Your task to perform on an android device: Open calendar and show me the second week of next month Image 0: 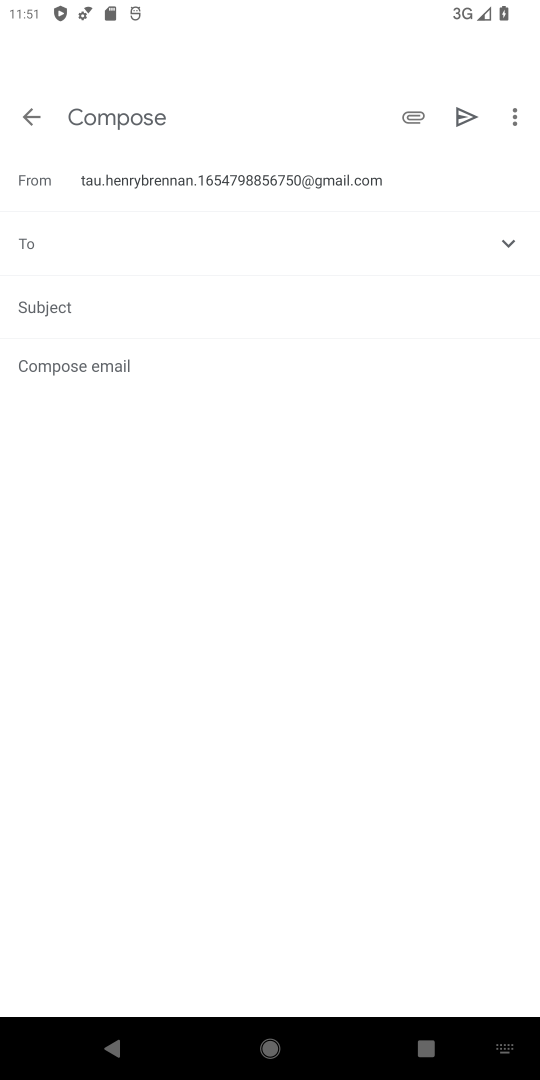
Step 0: drag from (96, 493) to (103, 749)
Your task to perform on an android device: Open calendar and show me the second week of next month Image 1: 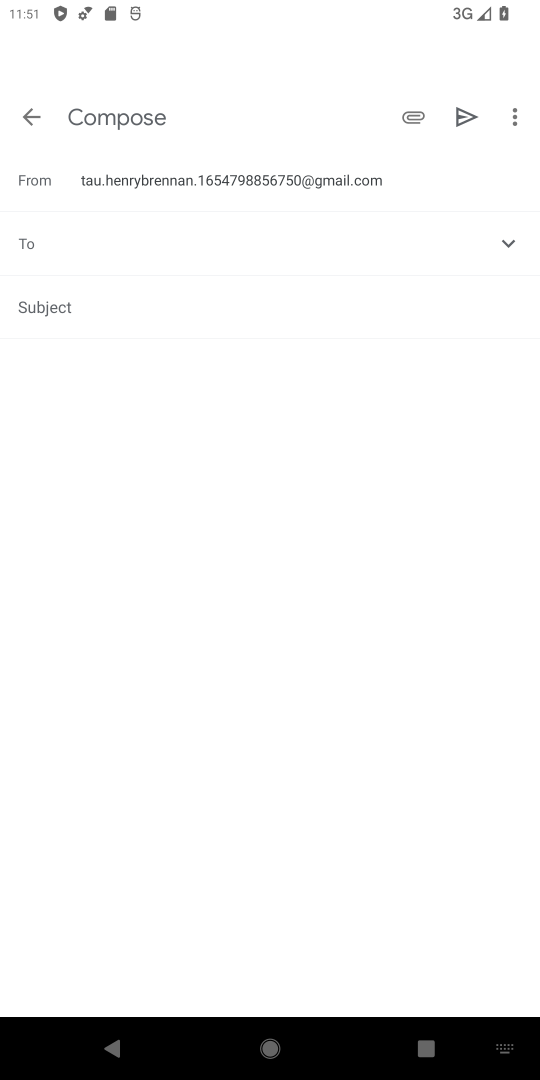
Step 1: drag from (368, 584) to (340, 1)
Your task to perform on an android device: Open calendar and show me the second week of next month Image 2: 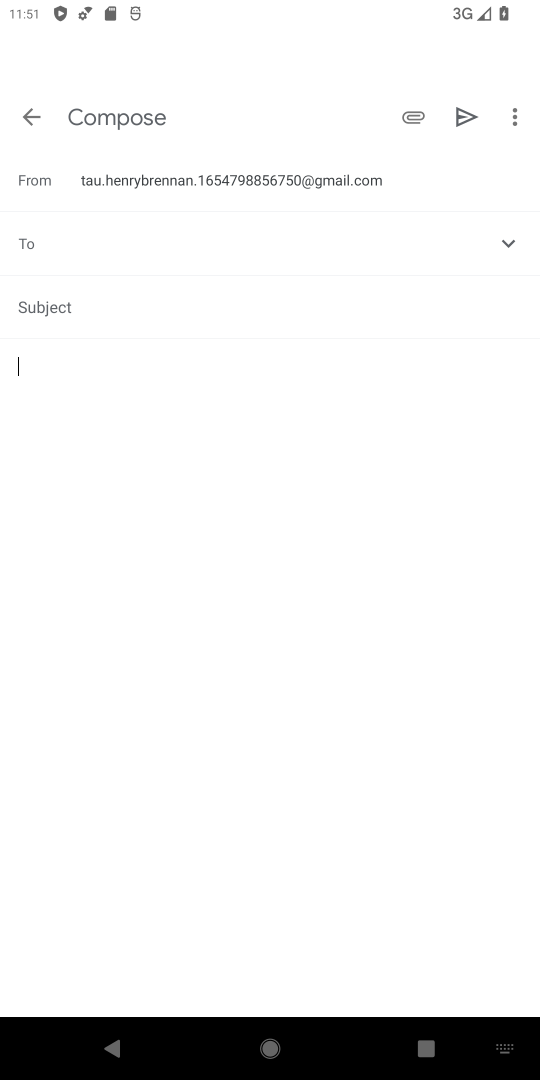
Step 2: drag from (150, 274) to (219, 878)
Your task to perform on an android device: Open calendar and show me the second week of next month Image 3: 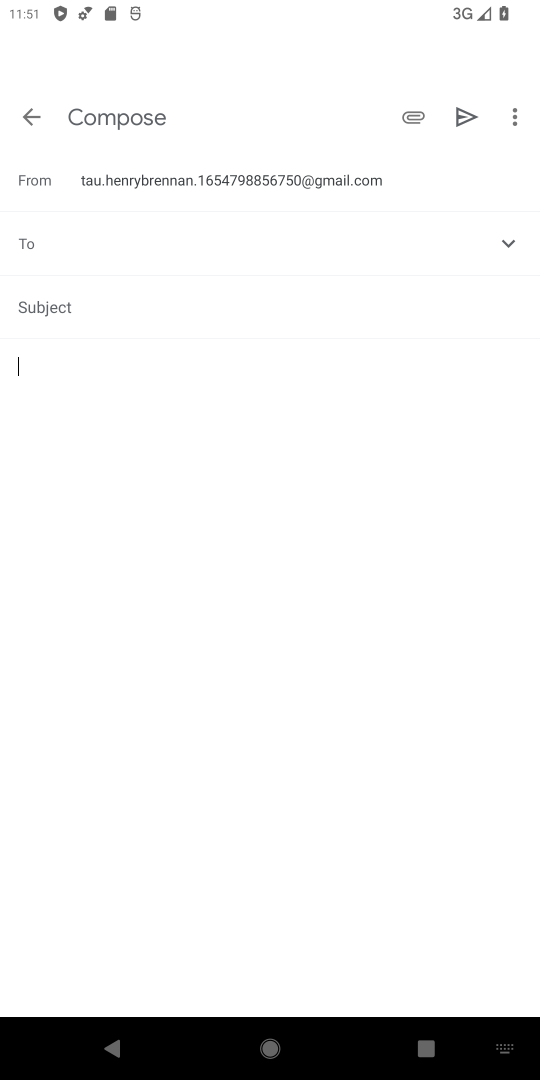
Step 3: drag from (235, 563) to (239, 478)
Your task to perform on an android device: Open calendar and show me the second week of next month Image 4: 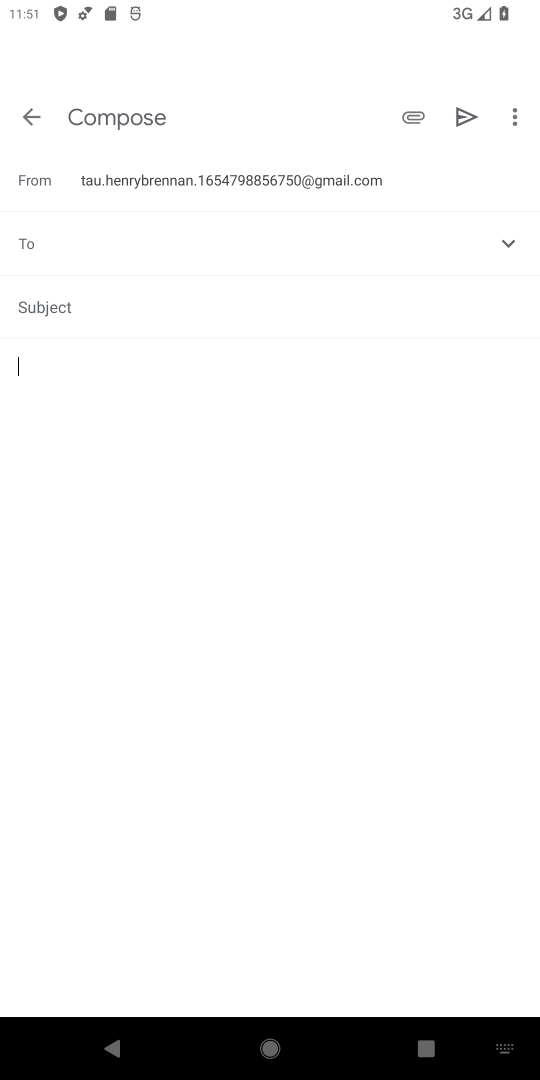
Step 4: press home button
Your task to perform on an android device: Open calendar and show me the second week of next month Image 5: 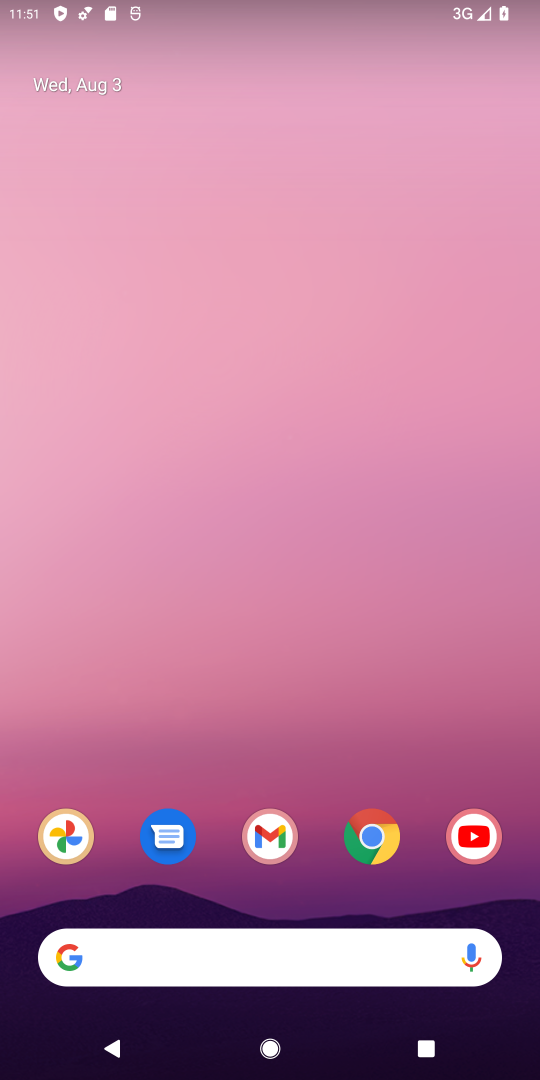
Step 5: drag from (234, 726) to (238, 408)
Your task to perform on an android device: Open calendar and show me the second week of next month Image 6: 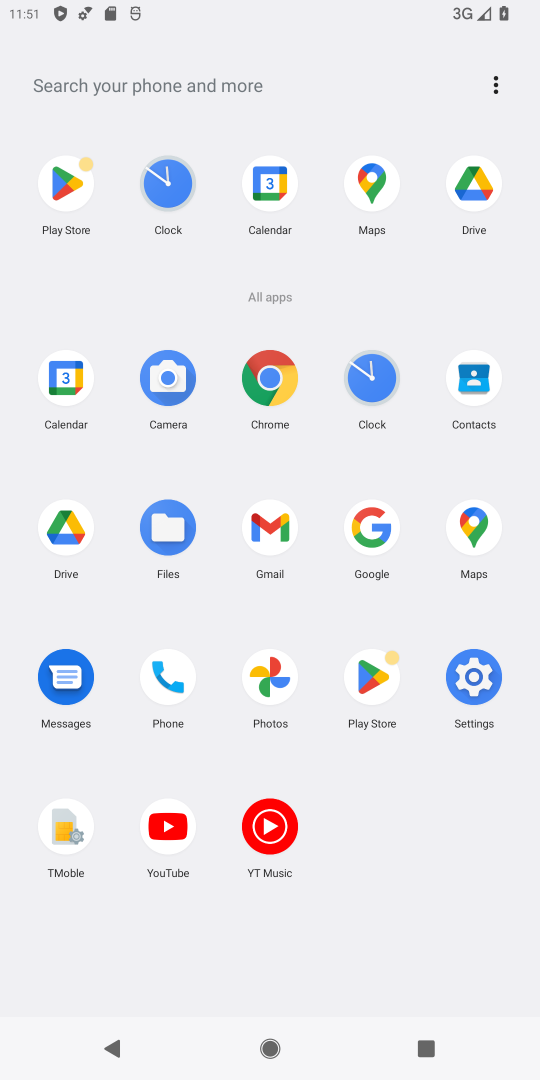
Step 6: click (51, 377)
Your task to perform on an android device: Open calendar and show me the second week of next month Image 7: 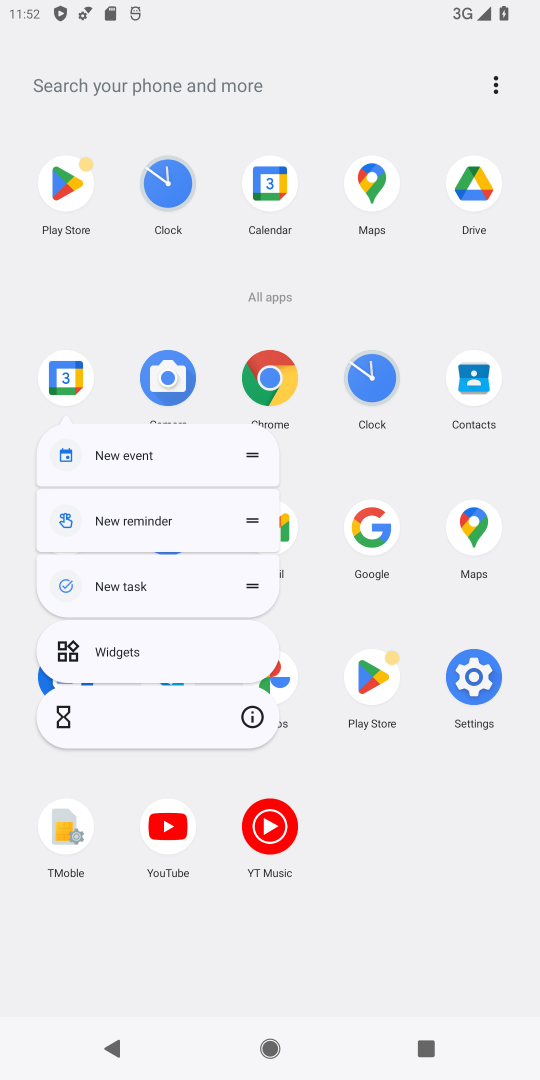
Step 7: click (236, 719)
Your task to perform on an android device: Open calendar and show me the second week of next month Image 8: 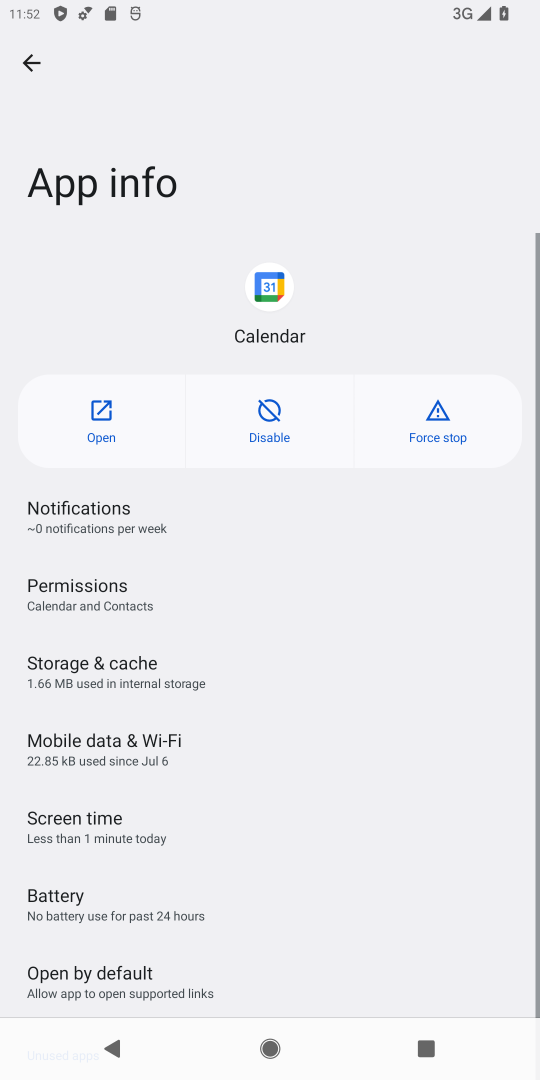
Step 8: click (87, 410)
Your task to perform on an android device: Open calendar and show me the second week of next month Image 9: 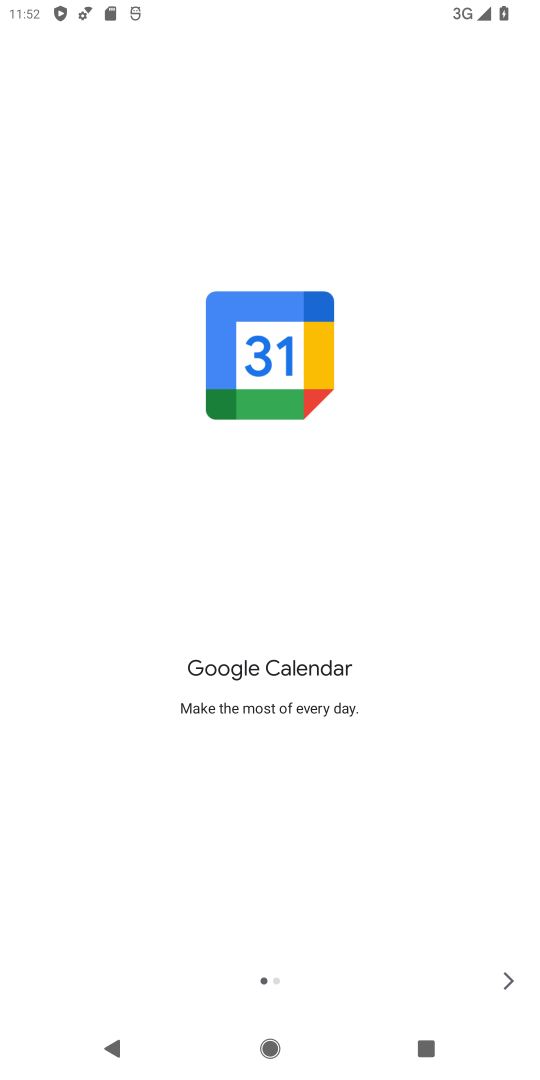
Step 9: click (505, 974)
Your task to perform on an android device: Open calendar and show me the second week of next month Image 10: 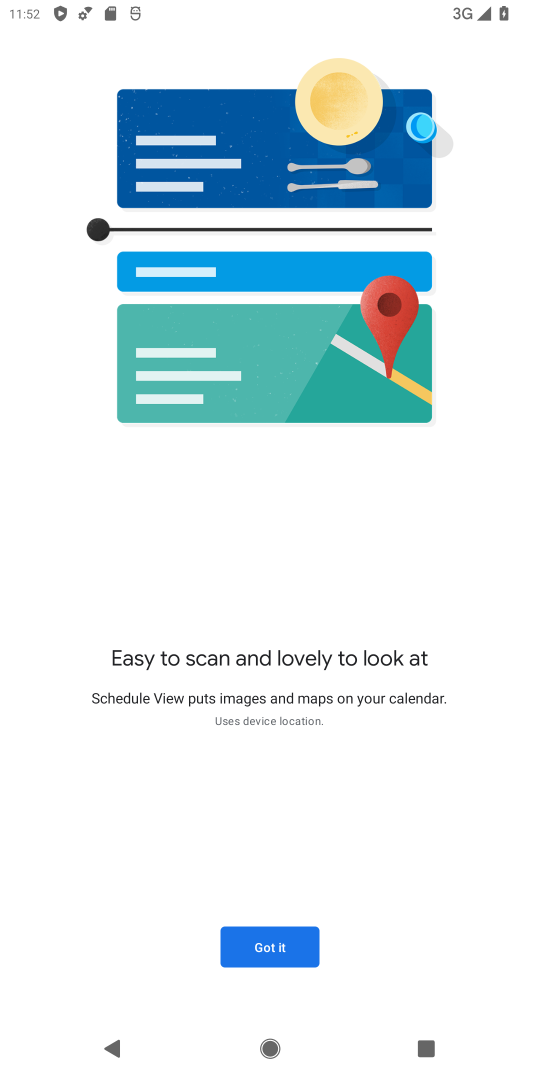
Step 10: click (263, 947)
Your task to perform on an android device: Open calendar and show me the second week of next month Image 11: 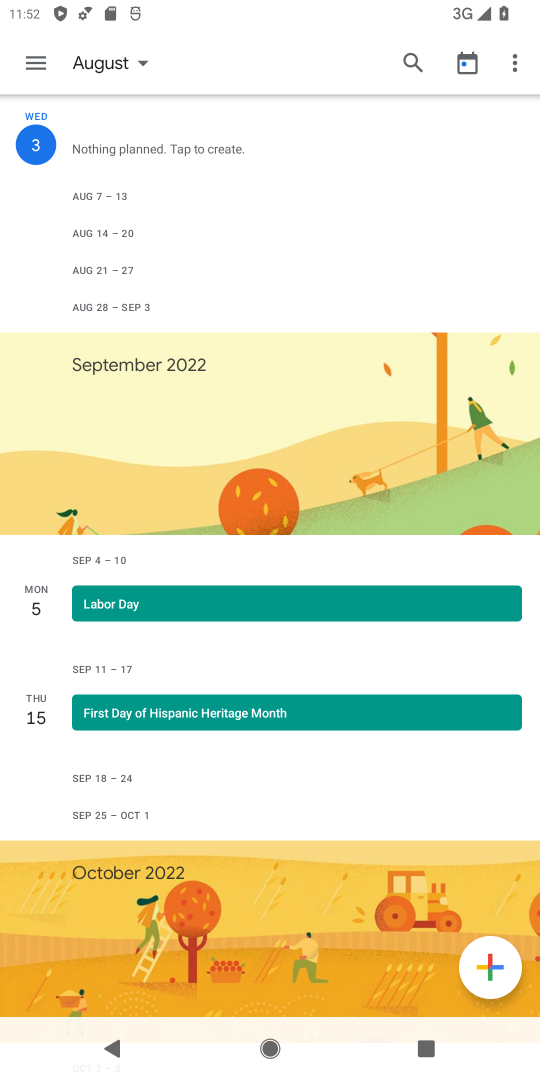
Step 11: drag from (230, 875) to (262, 380)
Your task to perform on an android device: Open calendar and show me the second week of next month Image 12: 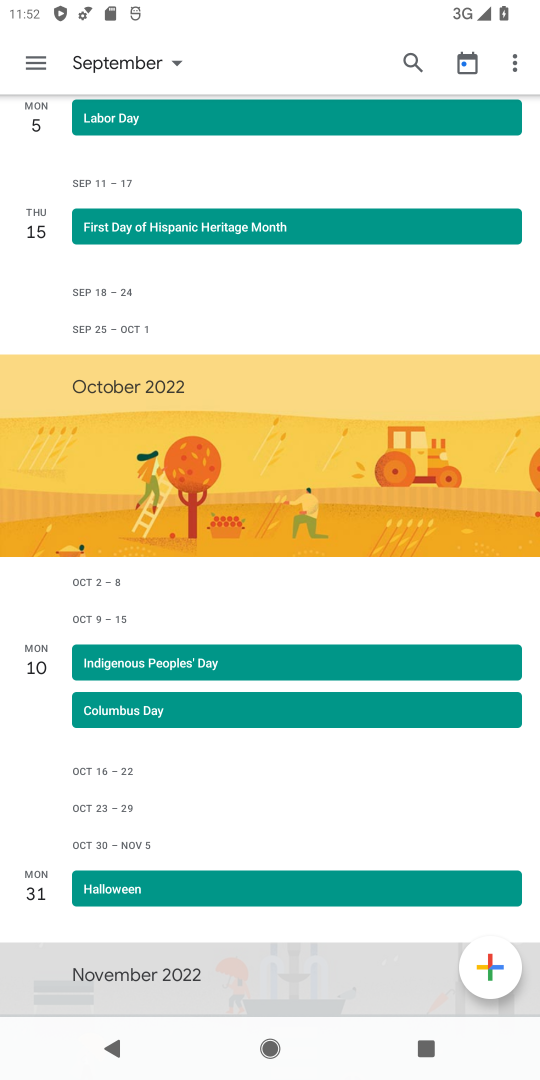
Step 12: drag from (331, 299) to (213, 929)
Your task to perform on an android device: Open calendar and show me the second week of next month Image 13: 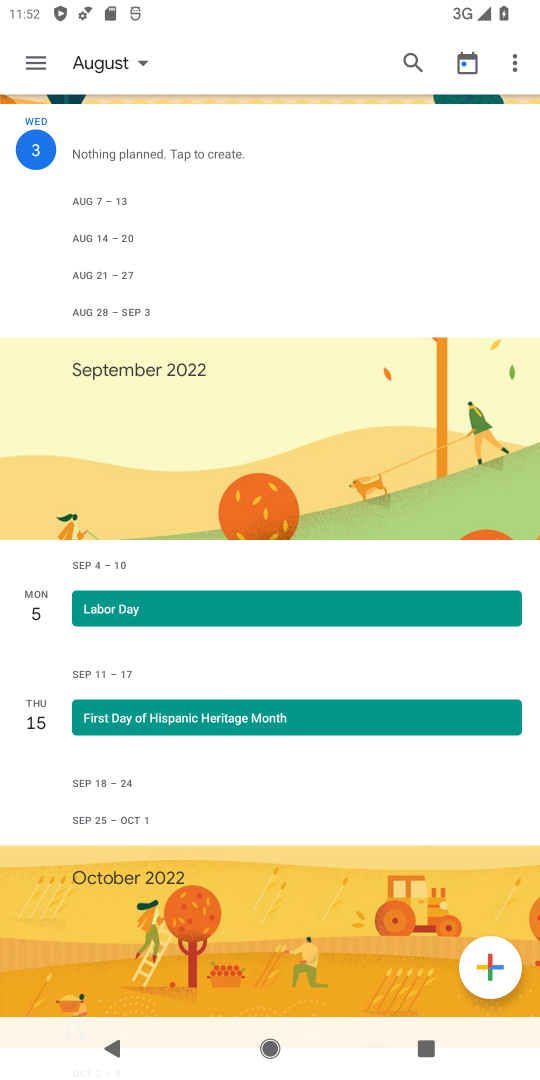
Step 13: click (113, 71)
Your task to perform on an android device: Open calendar and show me the second week of next month Image 14: 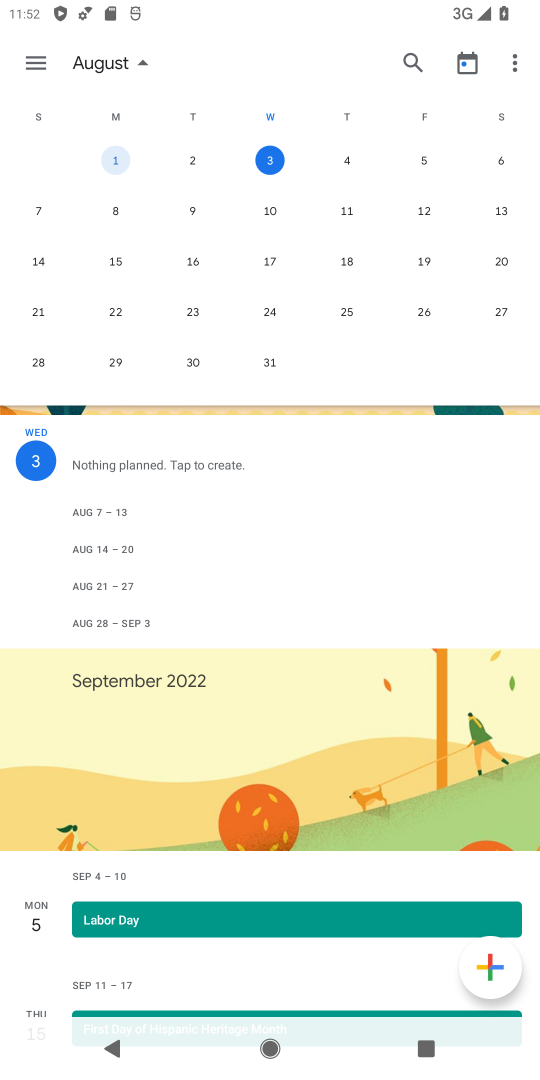
Step 14: drag from (420, 231) to (0, 270)
Your task to perform on an android device: Open calendar and show me the second week of next month Image 15: 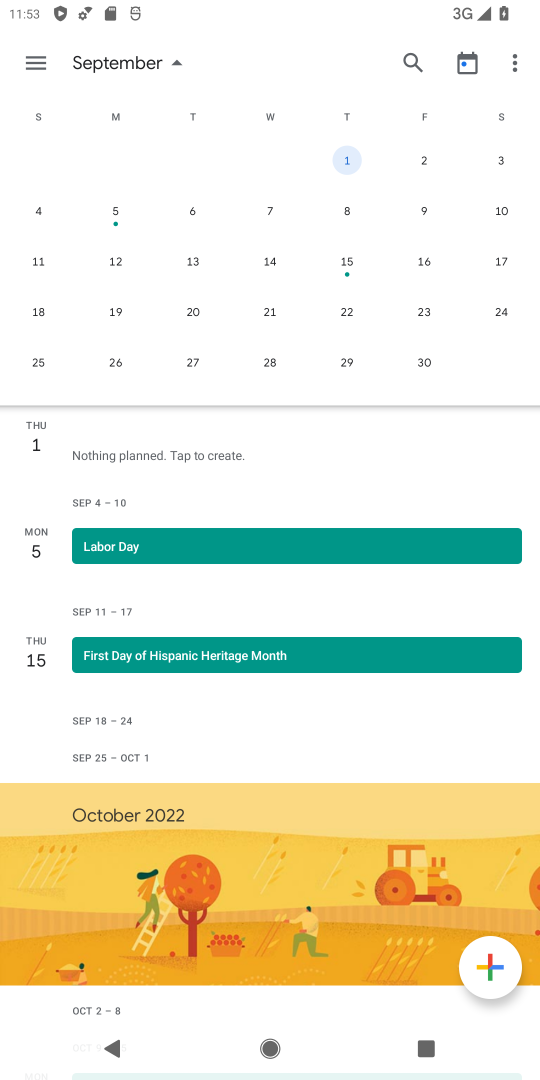
Step 15: click (343, 217)
Your task to perform on an android device: Open calendar and show me the second week of next month Image 16: 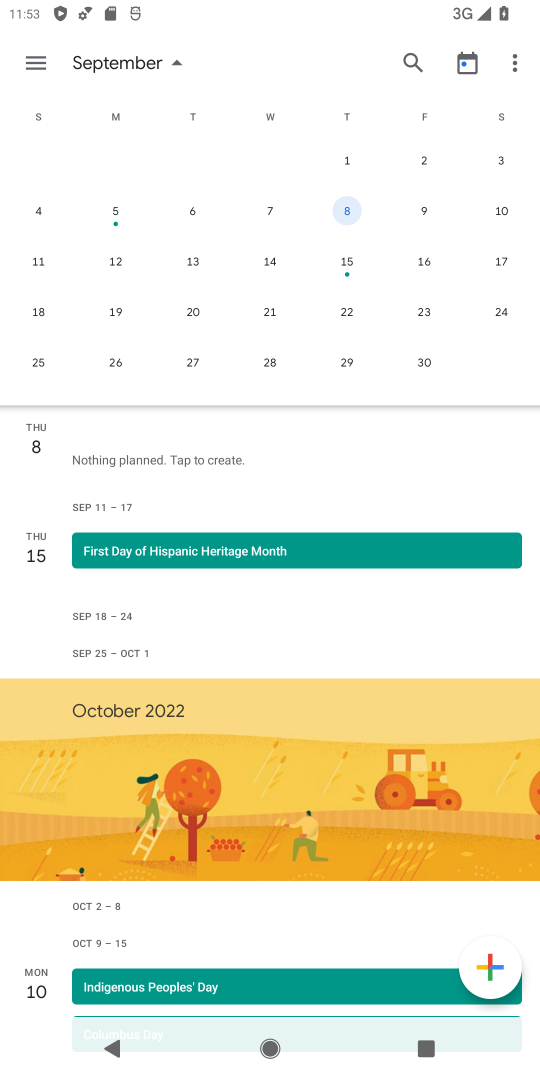
Step 16: task complete